Your task to perform on an android device: check the backup settings in the google photos Image 0: 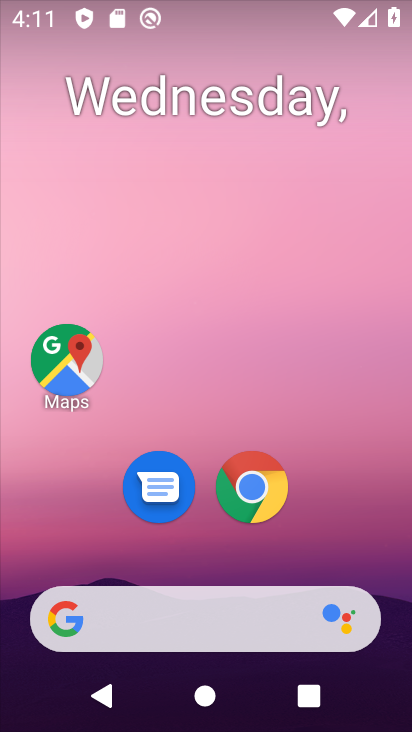
Step 0: drag from (199, 564) to (226, 22)
Your task to perform on an android device: check the backup settings in the google photos Image 1: 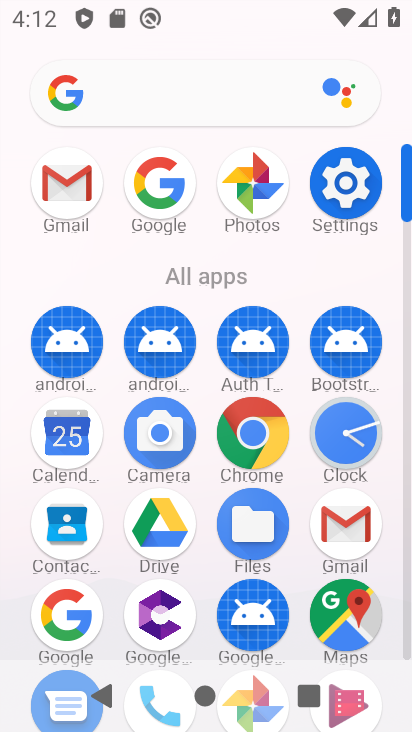
Step 1: click (247, 173)
Your task to perform on an android device: check the backup settings in the google photos Image 2: 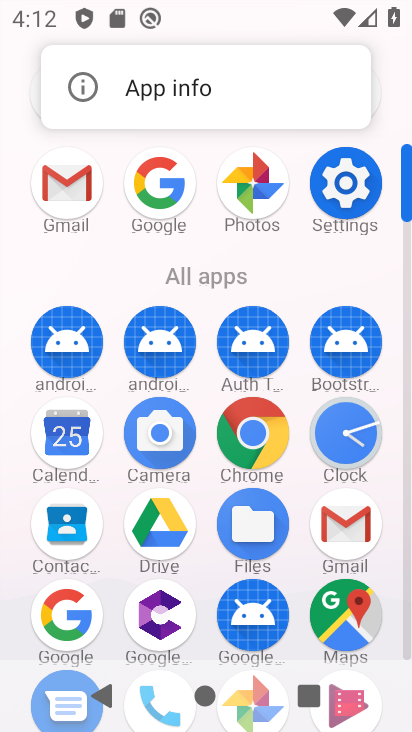
Step 2: click (255, 180)
Your task to perform on an android device: check the backup settings in the google photos Image 3: 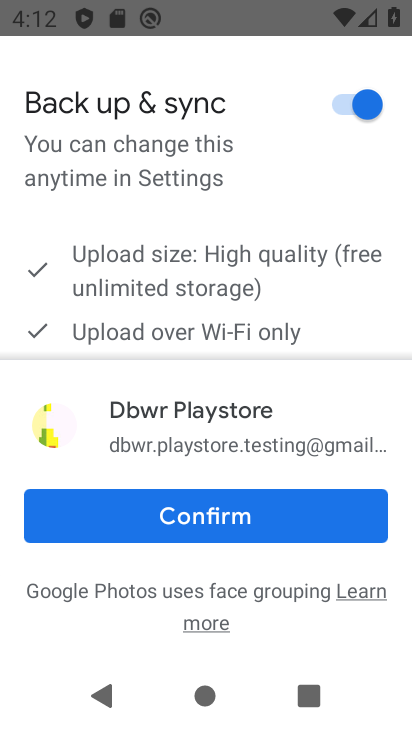
Step 3: click (197, 514)
Your task to perform on an android device: check the backup settings in the google photos Image 4: 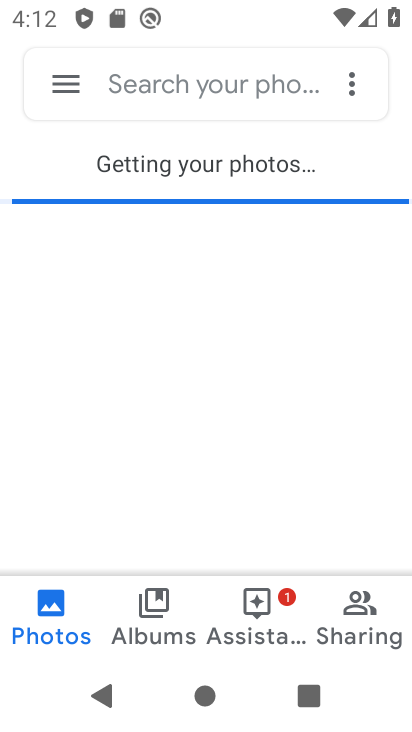
Step 4: click (62, 76)
Your task to perform on an android device: check the backup settings in the google photos Image 5: 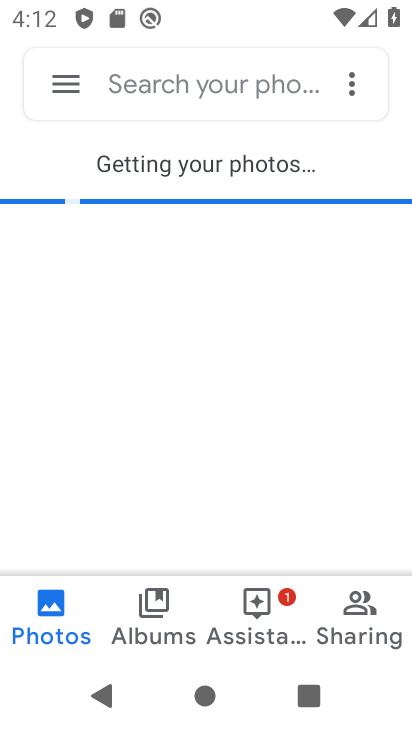
Step 5: click (62, 76)
Your task to perform on an android device: check the backup settings in the google photos Image 6: 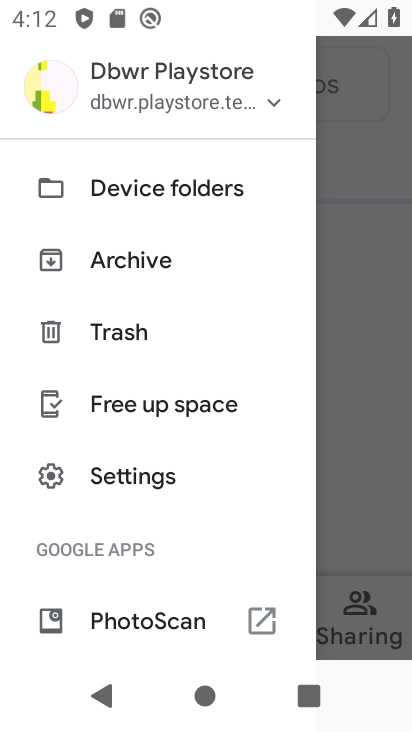
Step 6: click (78, 473)
Your task to perform on an android device: check the backup settings in the google photos Image 7: 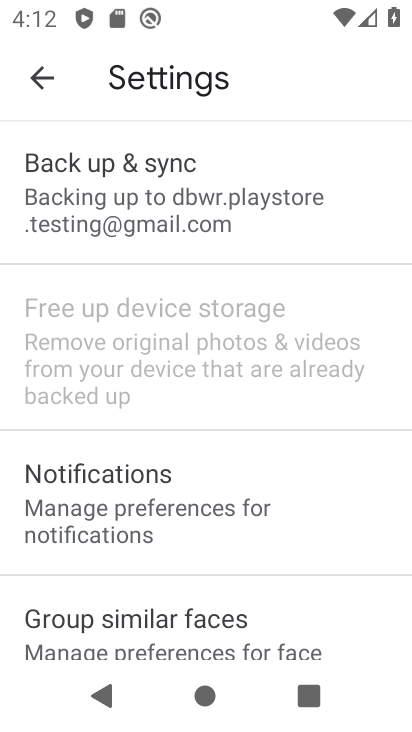
Step 7: click (242, 219)
Your task to perform on an android device: check the backup settings in the google photos Image 8: 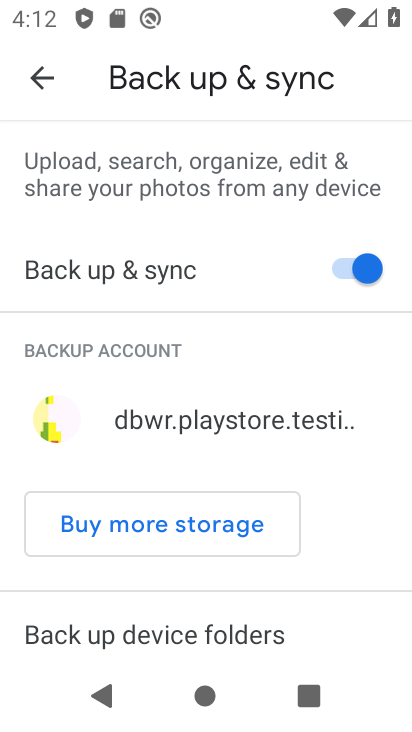
Step 8: task complete